Your task to perform on an android device: toggle pop-ups in chrome Image 0: 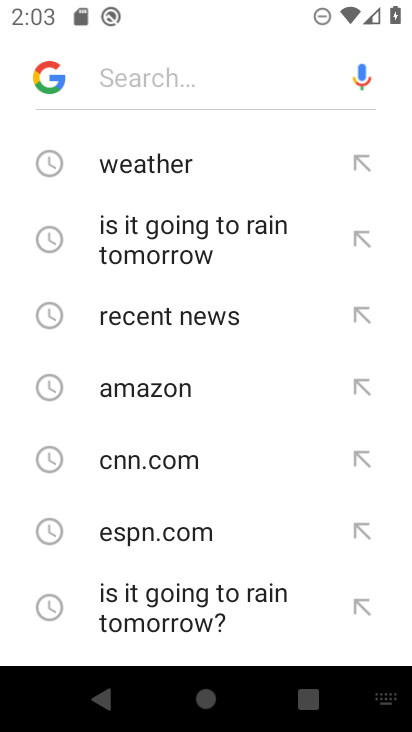
Step 0: click (225, 689)
Your task to perform on an android device: toggle pop-ups in chrome Image 1: 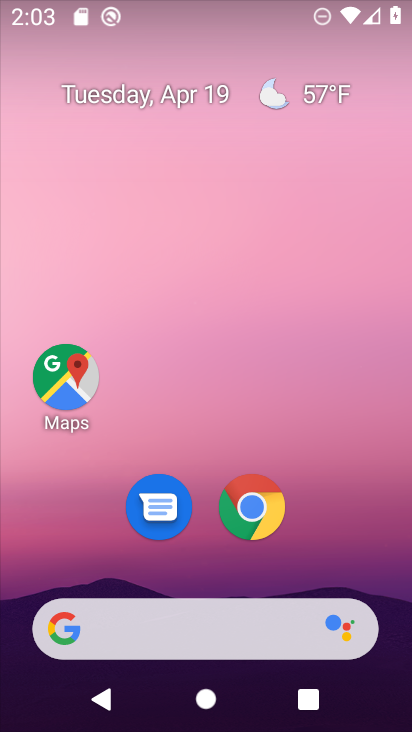
Step 1: drag from (362, 563) to (357, 473)
Your task to perform on an android device: toggle pop-ups in chrome Image 2: 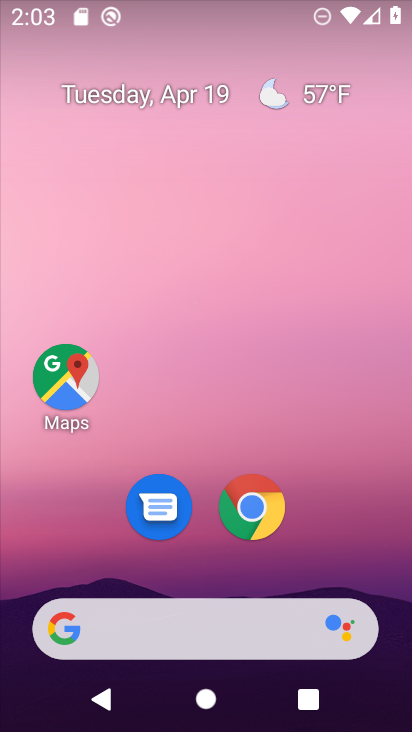
Step 2: click (260, 500)
Your task to perform on an android device: toggle pop-ups in chrome Image 3: 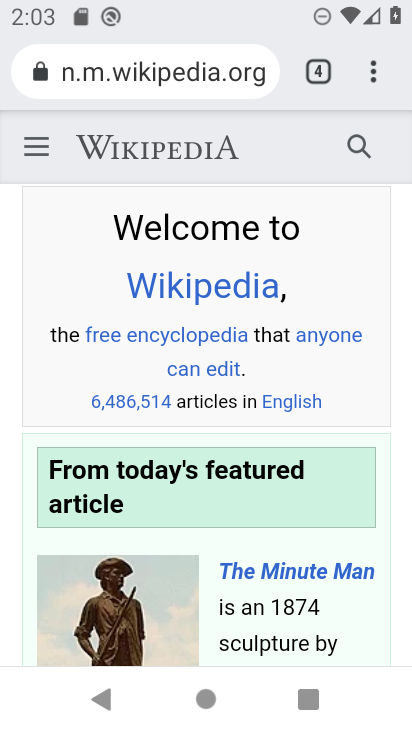
Step 3: click (373, 68)
Your task to perform on an android device: toggle pop-ups in chrome Image 4: 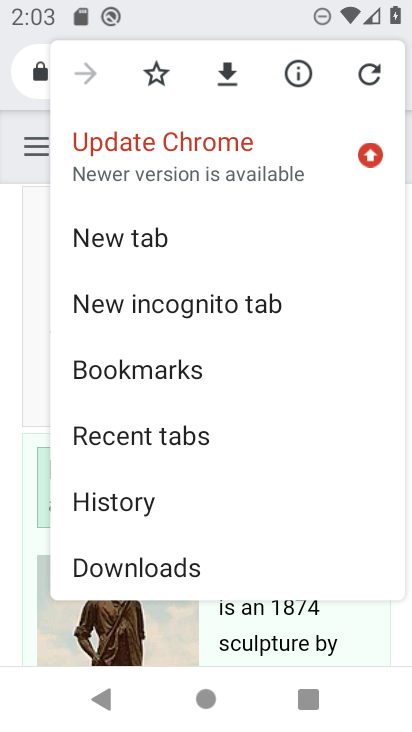
Step 4: drag from (223, 499) to (208, 88)
Your task to perform on an android device: toggle pop-ups in chrome Image 5: 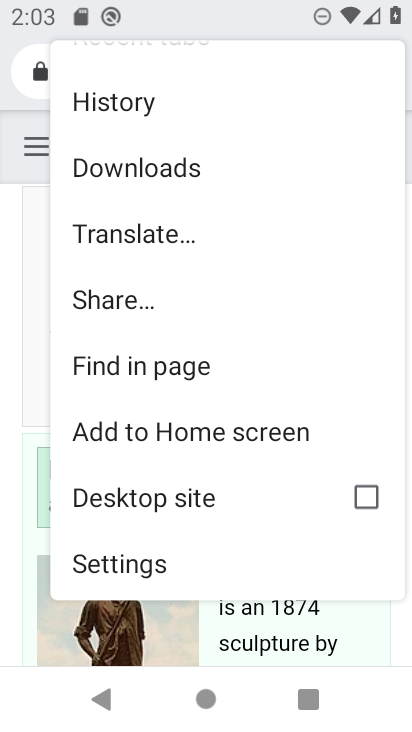
Step 5: click (179, 549)
Your task to perform on an android device: toggle pop-ups in chrome Image 6: 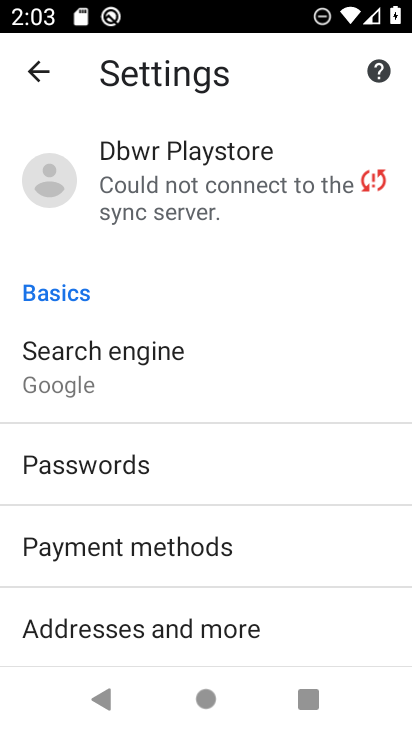
Step 6: drag from (190, 542) to (192, 326)
Your task to perform on an android device: toggle pop-ups in chrome Image 7: 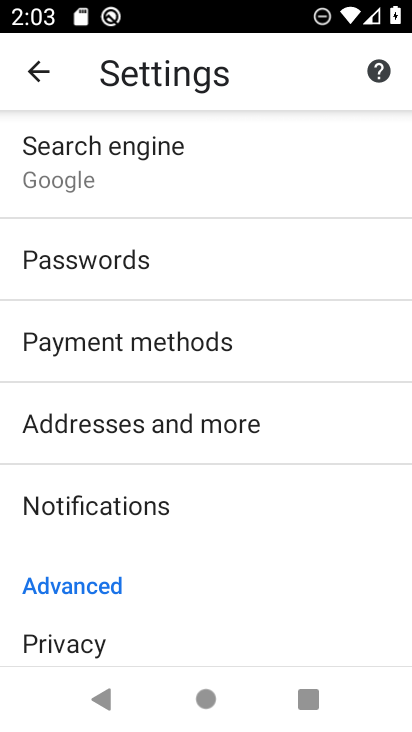
Step 7: drag from (191, 579) to (199, 207)
Your task to perform on an android device: toggle pop-ups in chrome Image 8: 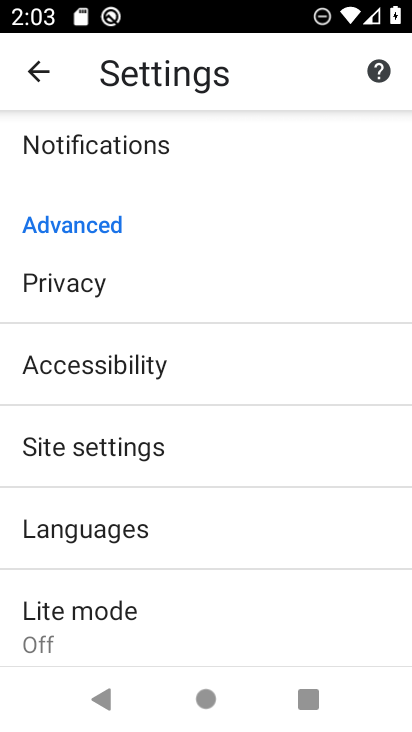
Step 8: drag from (191, 564) to (200, 432)
Your task to perform on an android device: toggle pop-ups in chrome Image 9: 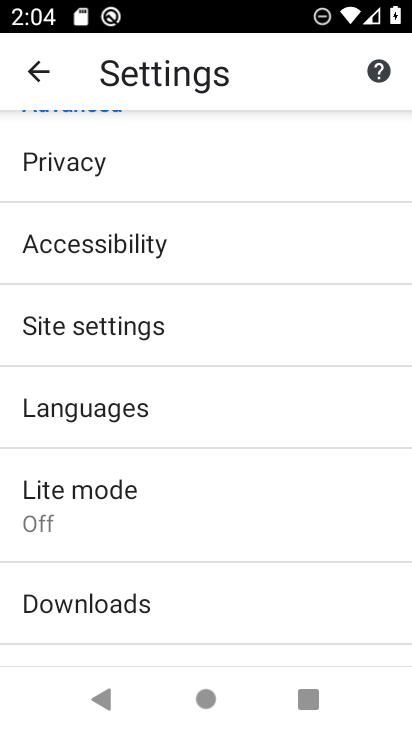
Step 9: click (218, 321)
Your task to perform on an android device: toggle pop-ups in chrome Image 10: 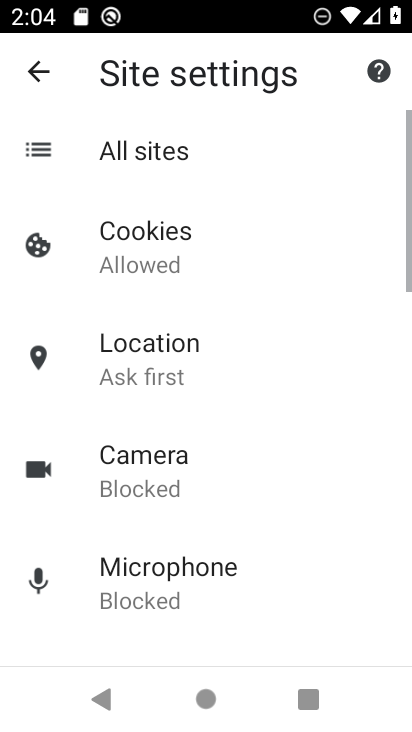
Step 10: drag from (186, 548) to (205, 255)
Your task to perform on an android device: toggle pop-ups in chrome Image 11: 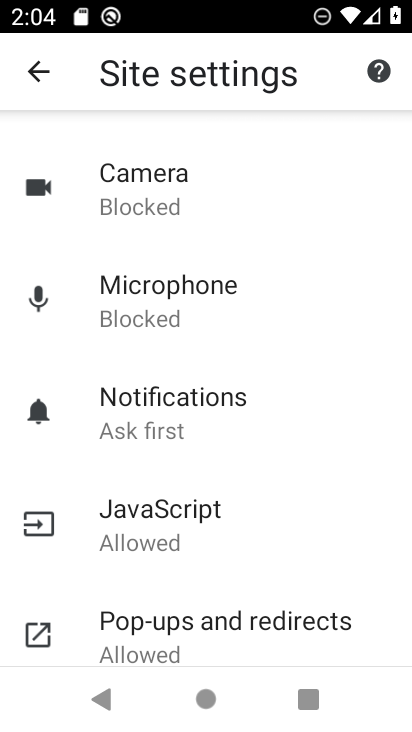
Step 11: click (172, 630)
Your task to perform on an android device: toggle pop-ups in chrome Image 12: 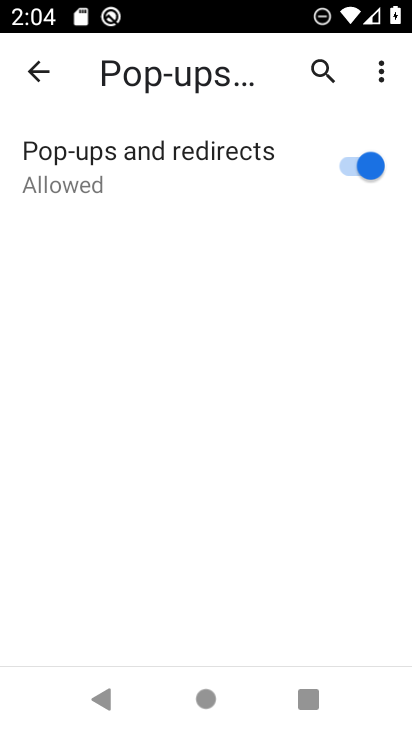
Step 12: click (319, 160)
Your task to perform on an android device: toggle pop-ups in chrome Image 13: 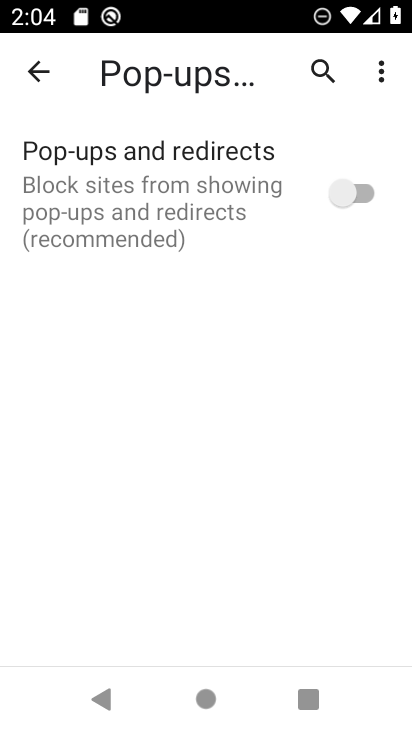
Step 13: task complete